Your task to perform on an android device: Go to settings Image 0: 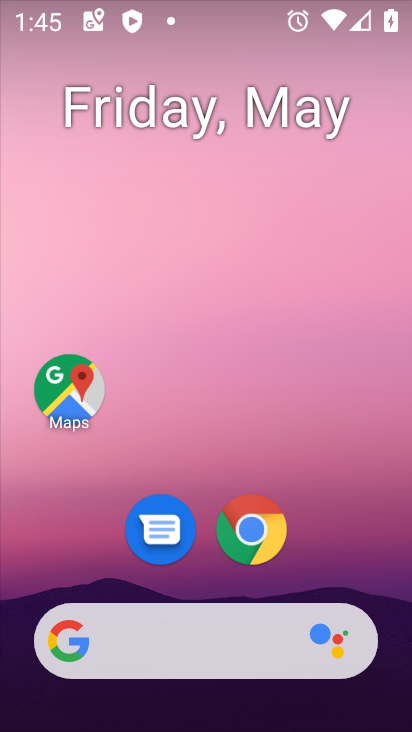
Step 0: click (386, 256)
Your task to perform on an android device: Go to settings Image 1: 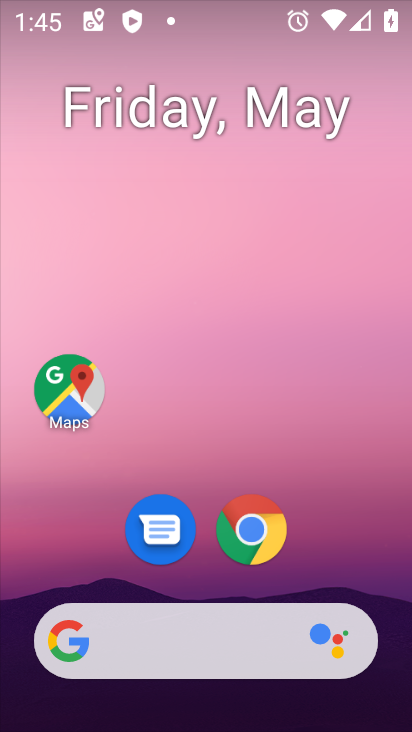
Step 1: drag from (388, 621) to (347, 232)
Your task to perform on an android device: Go to settings Image 2: 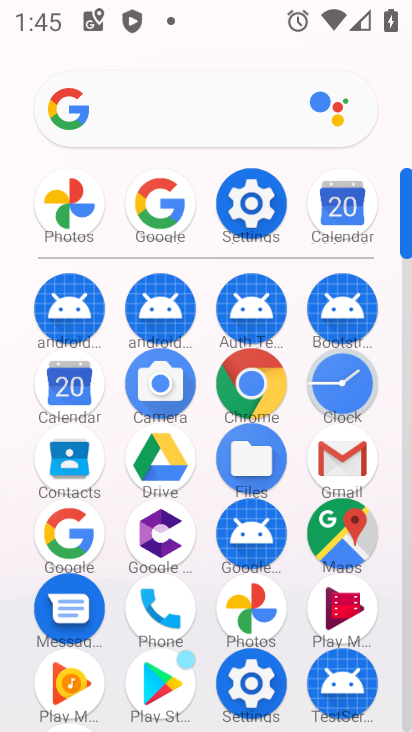
Step 2: click (256, 679)
Your task to perform on an android device: Go to settings Image 3: 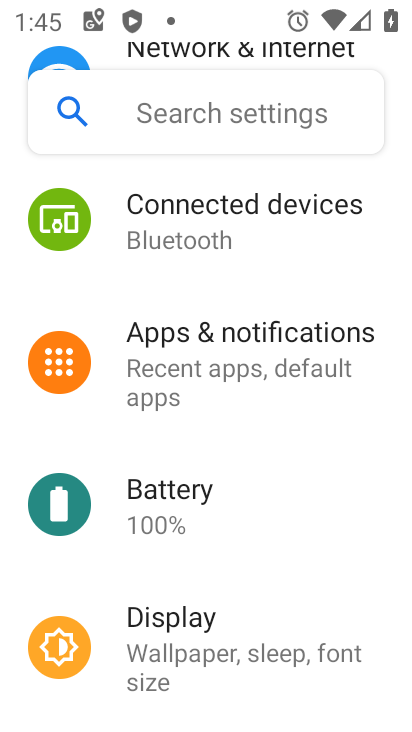
Step 3: task complete